Your task to perform on an android device: Go to Reddit.com Image 0: 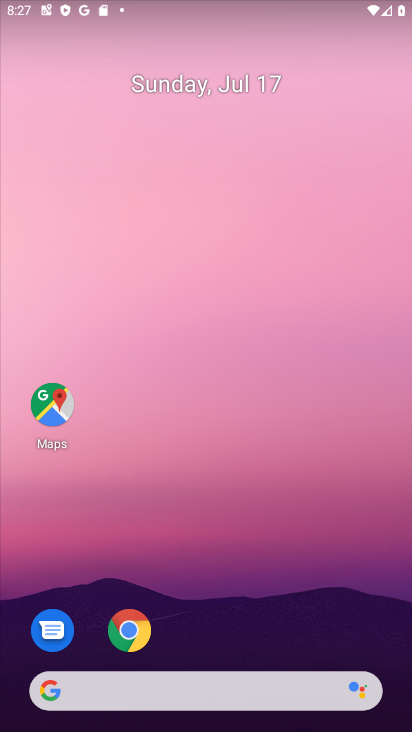
Step 0: click (116, 628)
Your task to perform on an android device: Go to Reddit.com Image 1: 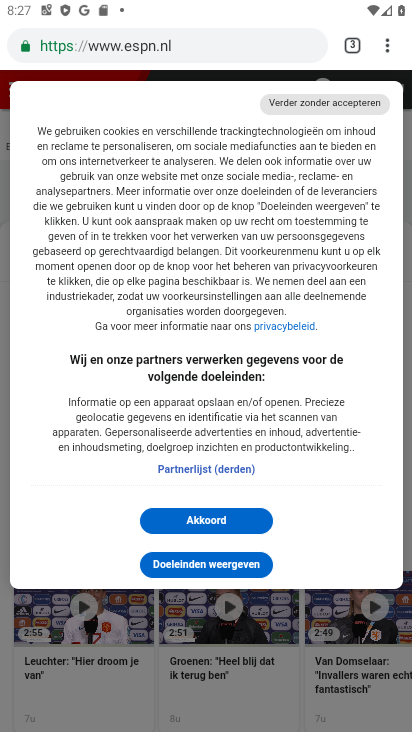
Step 1: click (197, 54)
Your task to perform on an android device: Go to Reddit.com Image 2: 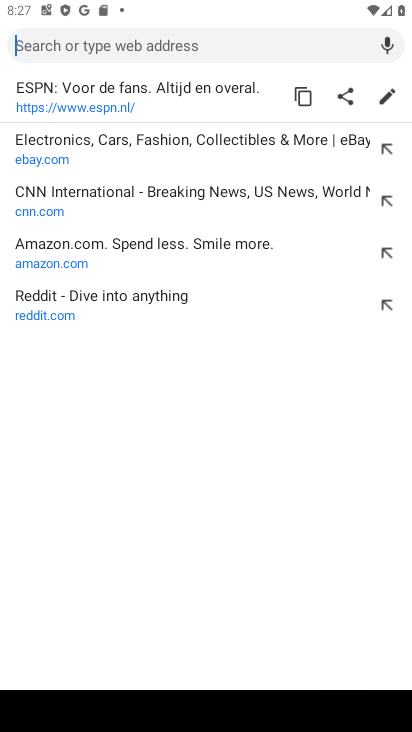
Step 2: type "www.reddit.com"
Your task to perform on an android device: Go to Reddit.com Image 3: 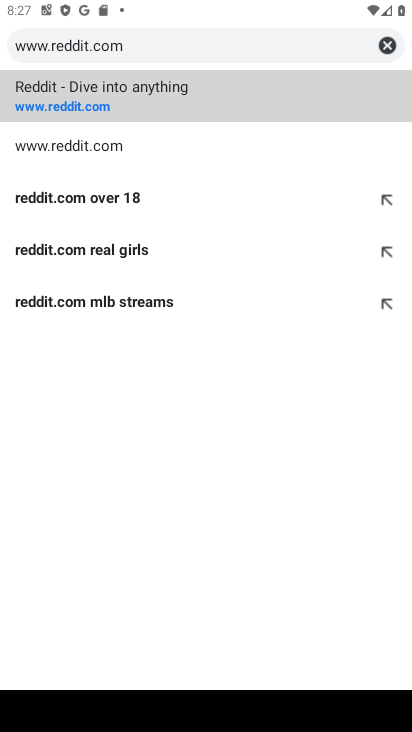
Step 3: click (50, 103)
Your task to perform on an android device: Go to Reddit.com Image 4: 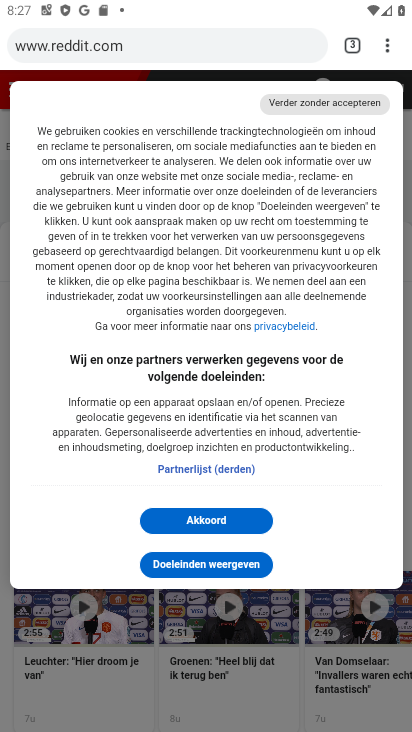
Step 4: click (50, 103)
Your task to perform on an android device: Go to Reddit.com Image 5: 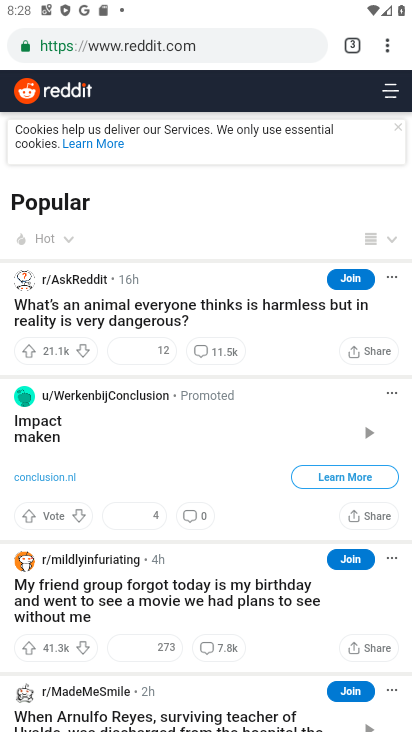
Step 5: task complete